Your task to perform on an android device: search for starred emails in the gmail app Image 0: 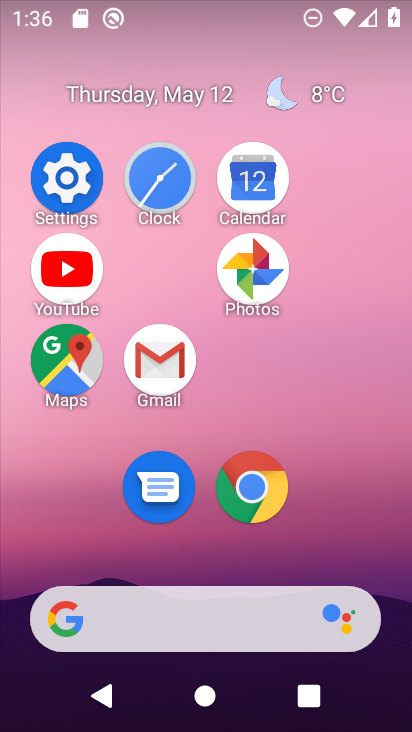
Step 0: click (156, 353)
Your task to perform on an android device: search for starred emails in the gmail app Image 1: 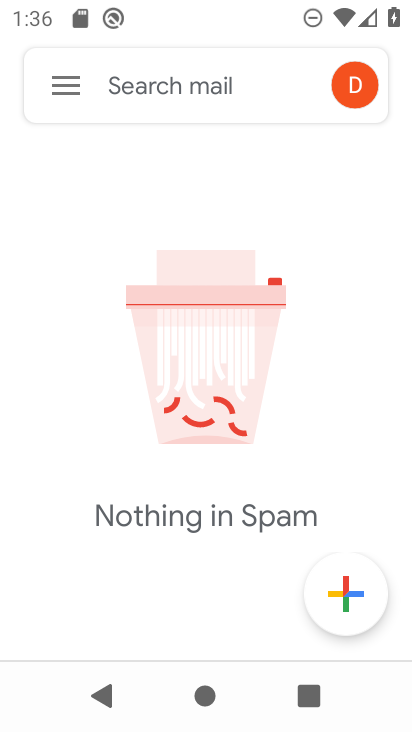
Step 1: click (65, 90)
Your task to perform on an android device: search for starred emails in the gmail app Image 2: 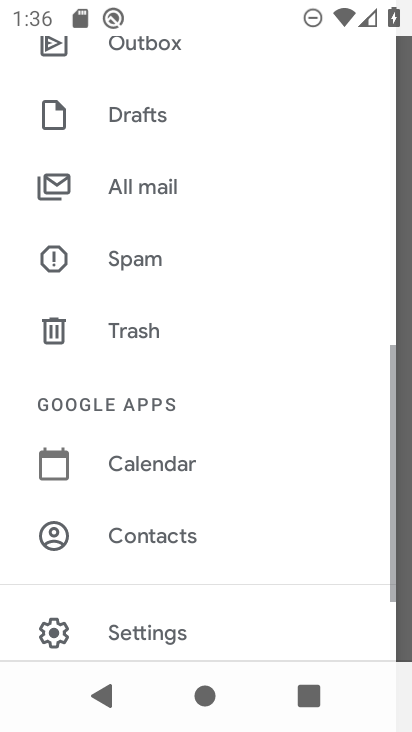
Step 2: drag from (269, 192) to (271, 643)
Your task to perform on an android device: search for starred emails in the gmail app Image 3: 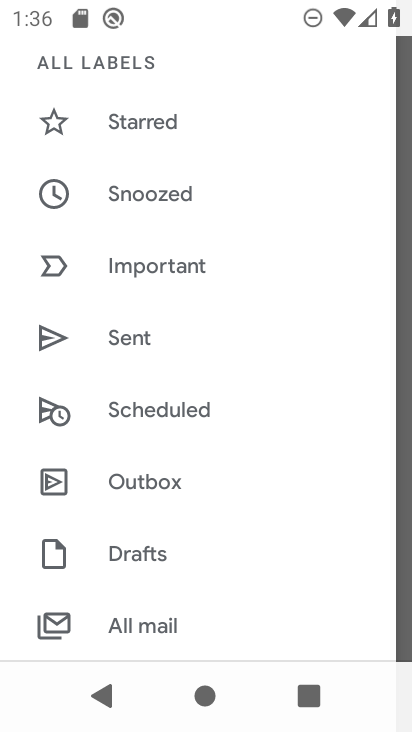
Step 3: click (194, 138)
Your task to perform on an android device: search for starred emails in the gmail app Image 4: 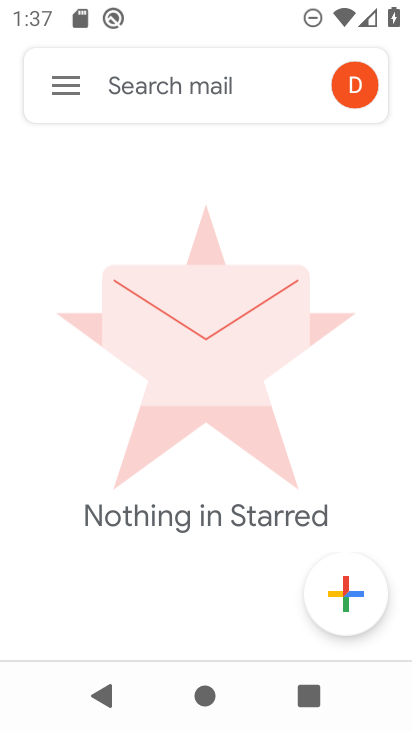
Step 4: task complete